Your task to perform on an android device: turn off notifications settings in the gmail app Image 0: 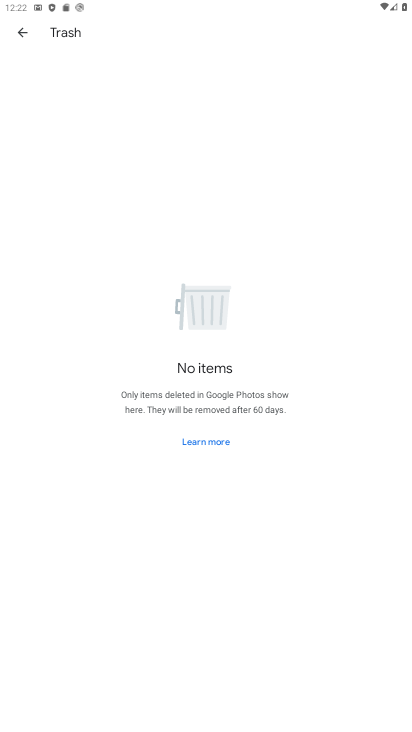
Step 0: press home button
Your task to perform on an android device: turn off notifications settings in the gmail app Image 1: 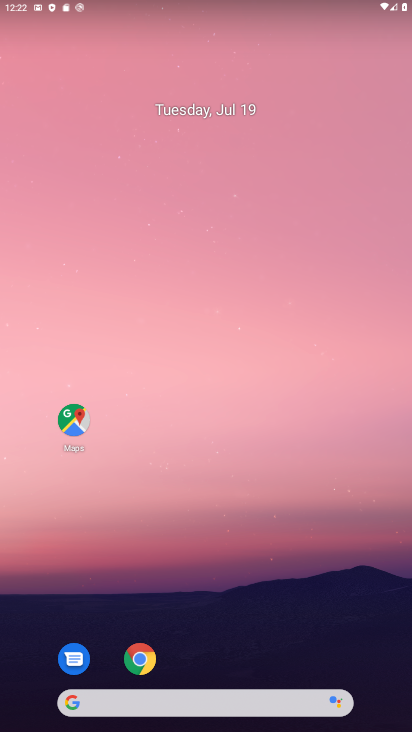
Step 1: drag from (220, 688) to (102, 85)
Your task to perform on an android device: turn off notifications settings in the gmail app Image 2: 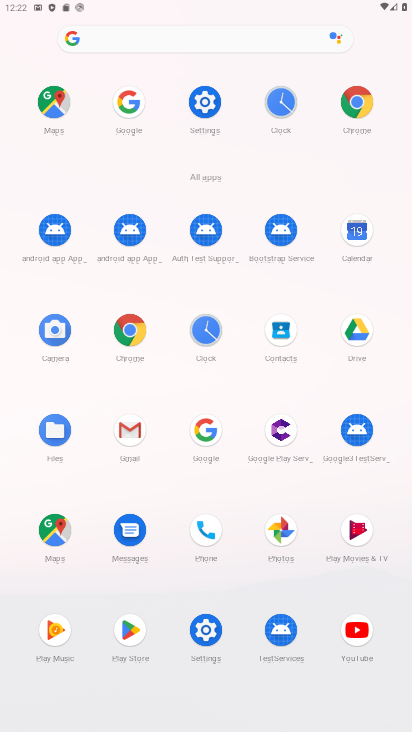
Step 2: click (129, 434)
Your task to perform on an android device: turn off notifications settings in the gmail app Image 3: 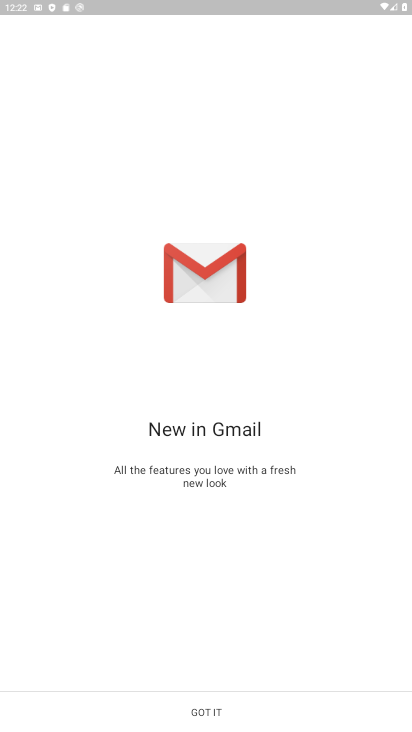
Step 3: click (221, 709)
Your task to perform on an android device: turn off notifications settings in the gmail app Image 4: 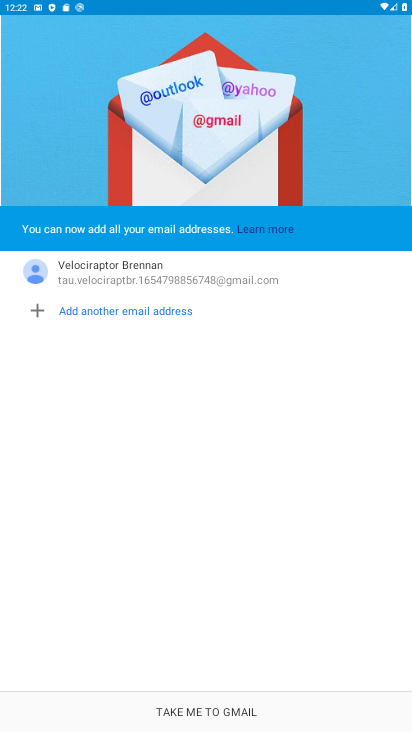
Step 4: click (229, 705)
Your task to perform on an android device: turn off notifications settings in the gmail app Image 5: 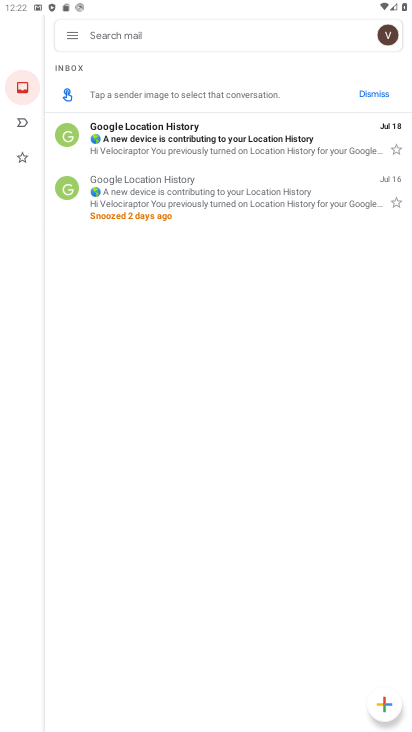
Step 5: click (75, 43)
Your task to perform on an android device: turn off notifications settings in the gmail app Image 6: 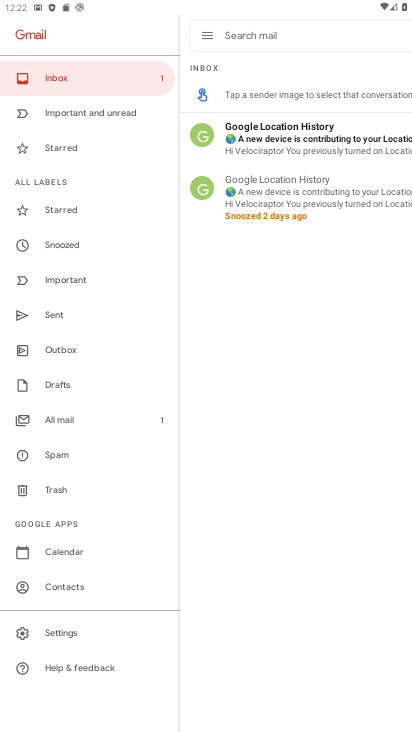
Step 6: click (67, 633)
Your task to perform on an android device: turn off notifications settings in the gmail app Image 7: 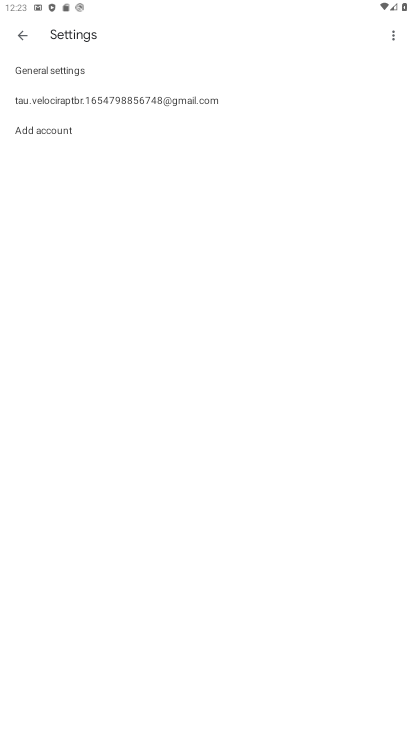
Step 7: click (28, 101)
Your task to perform on an android device: turn off notifications settings in the gmail app Image 8: 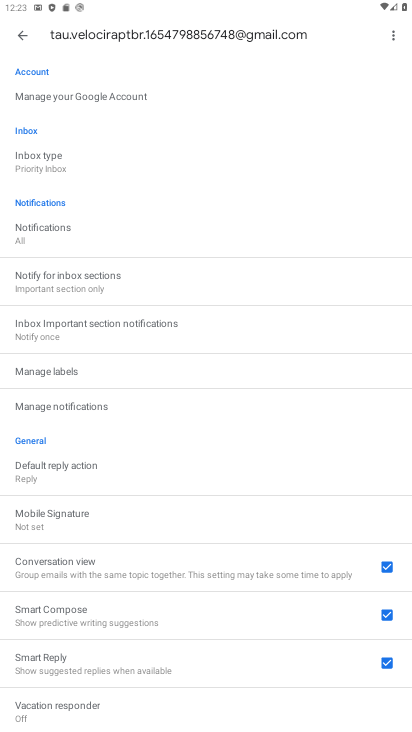
Step 8: click (83, 405)
Your task to perform on an android device: turn off notifications settings in the gmail app Image 9: 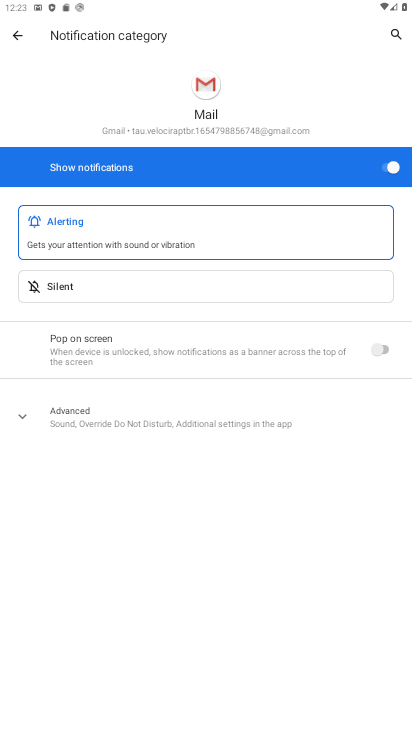
Step 9: click (384, 174)
Your task to perform on an android device: turn off notifications settings in the gmail app Image 10: 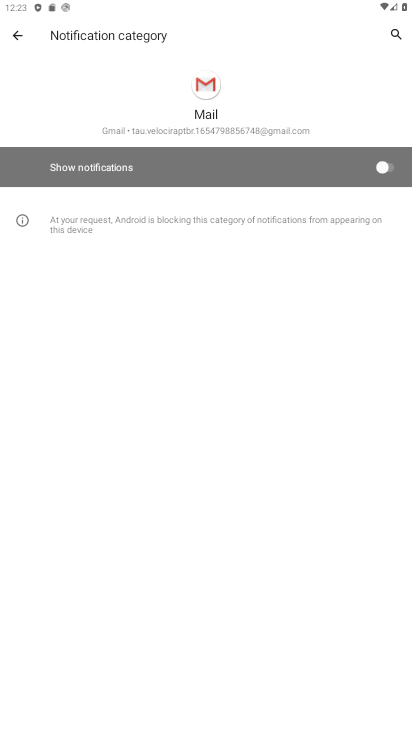
Step 10: task complete